Your task to perform on an android device: turn on javascript in the chrome app Image 0: 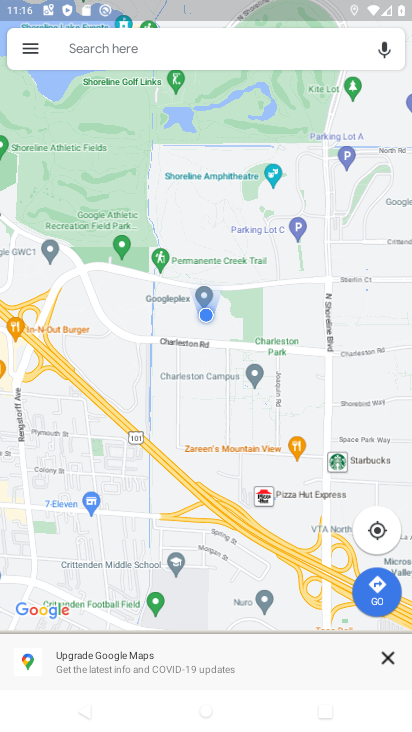
Step 0: press home button
Your task to perform on an android device: turn on javascript in the chrome app Image 1: 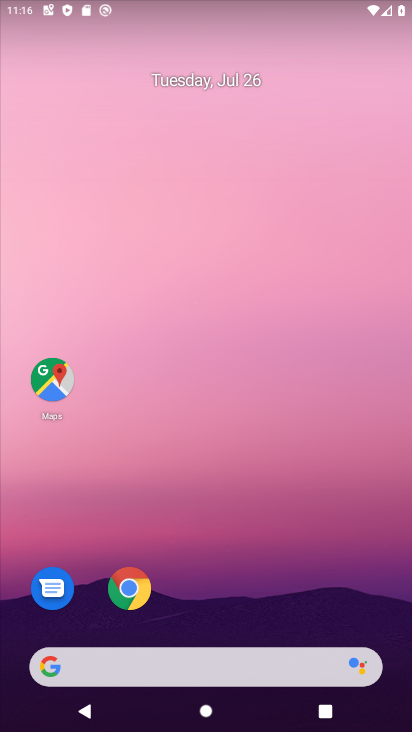
Step 1: click (125, 589)
Your task to perform on an android device: turn on javascript in the chrome app Image 2: 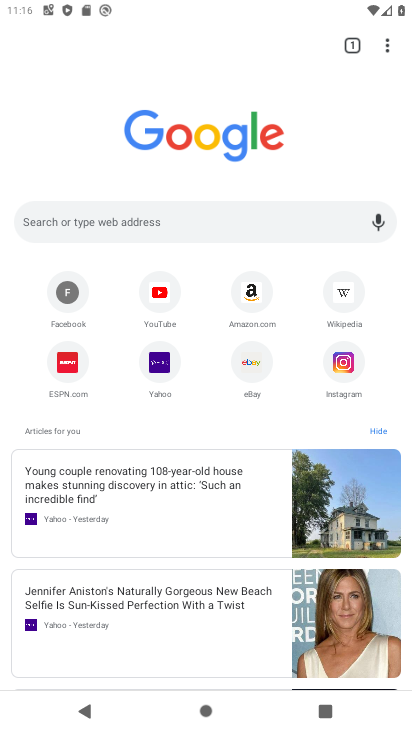
Step 2: drag from (384, 43) to (231, 373)
Your task to perform on an android device: turn on javascript in the chrome app Image 3: 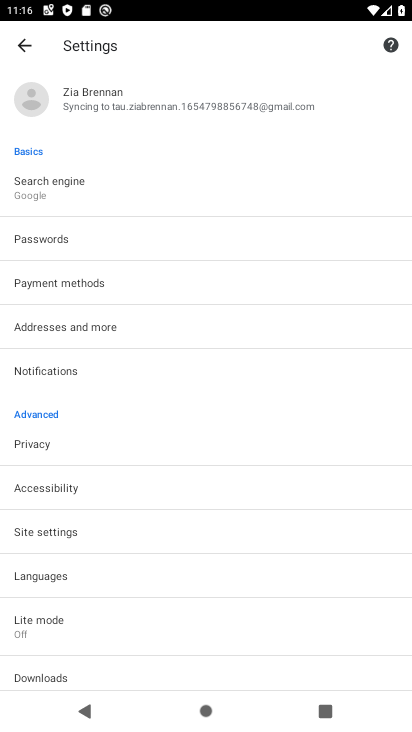
Step 3: click (74, 526)
Your task to perform on an android device: turn on javascript in the chrome app Image 4: 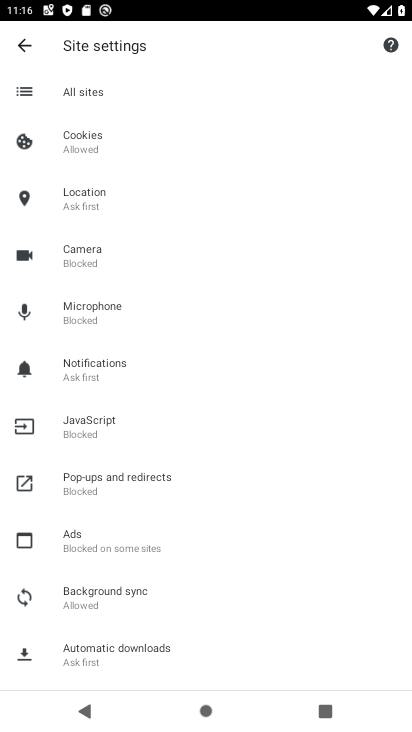
Step 4: click (97, 416)
Your task to perform on an android device: turn on javascript in the chrome app Image 5: 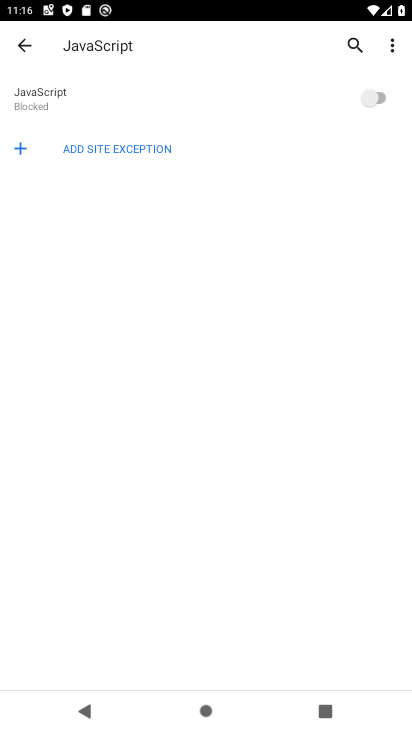
Step 5: click (217, 118)
Your task to perform on an android device: turn on javascript in the chrome app Image 6: 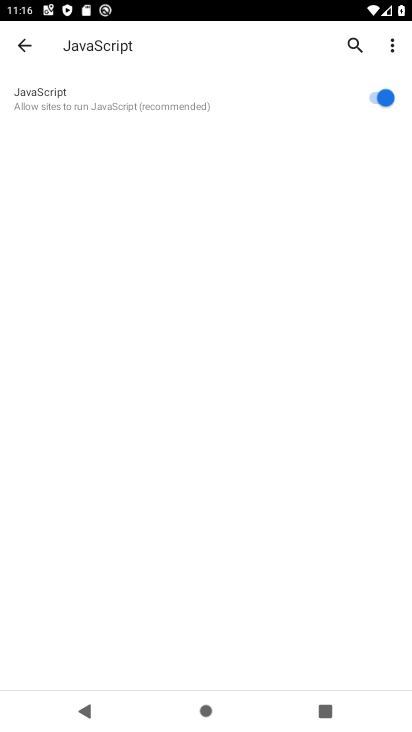
Step 6: task complete